Your task to perform on an android device: check the backup settings in the google photos Image 0: 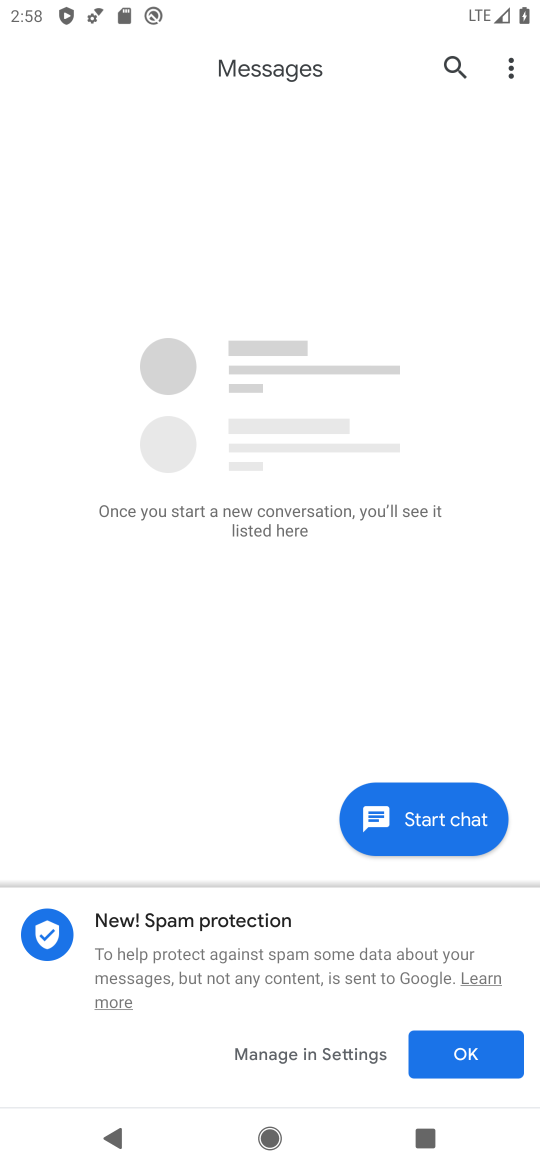
Step 0: press home button
Your task to perform on an android device: check the backup settings in the google photos Image 1: 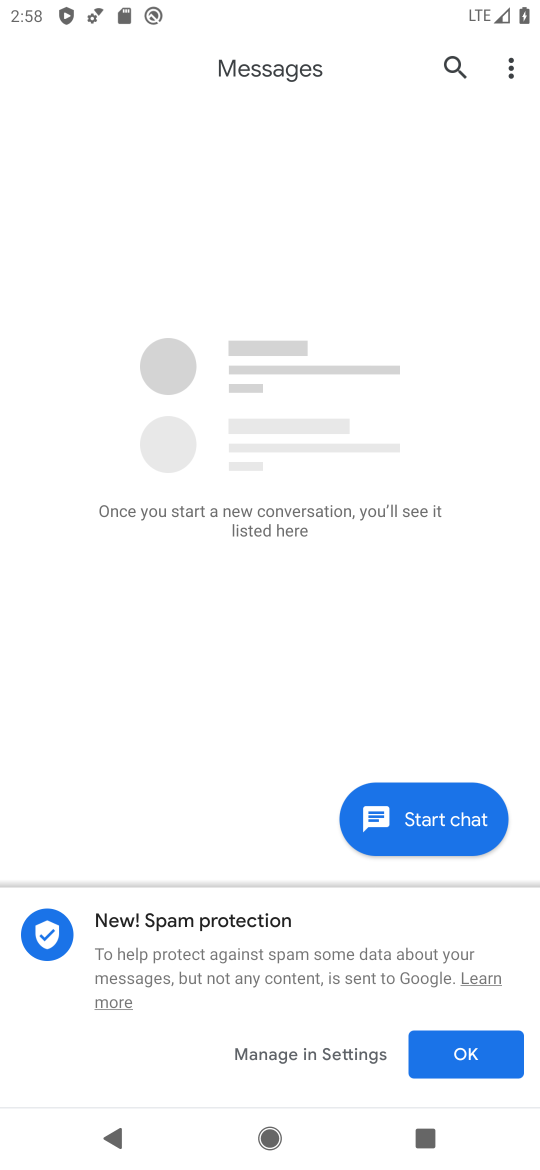
Step 1: press home button
Your task to perform on an android device: check the backup settings in the google photos Image 2: 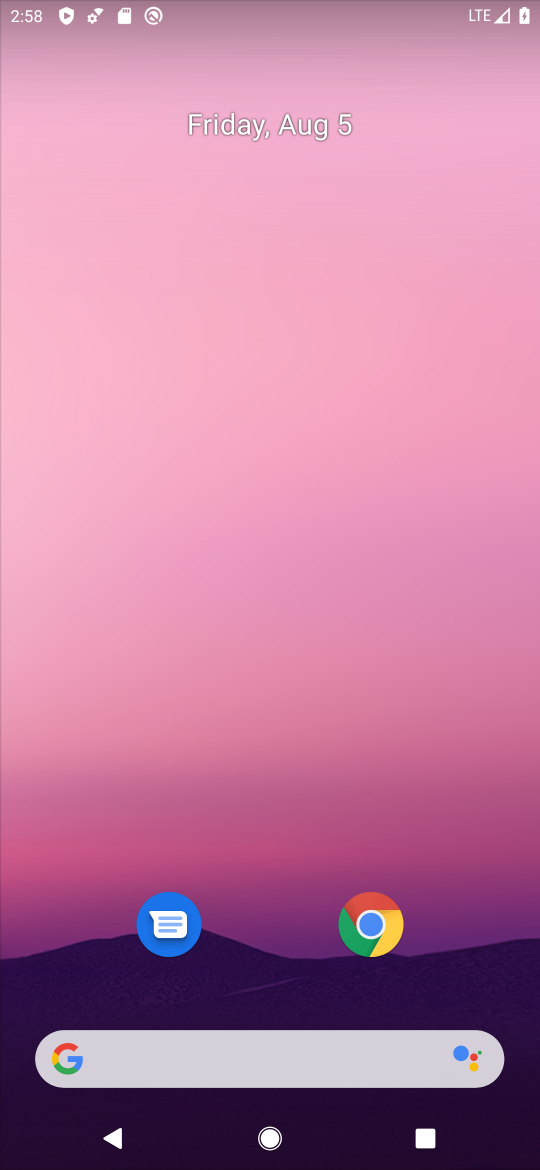
Step 2: drag from (448, 864) to (346, 122)
Your task to perform on an android device: check the backup settings in the google photos Image 3: 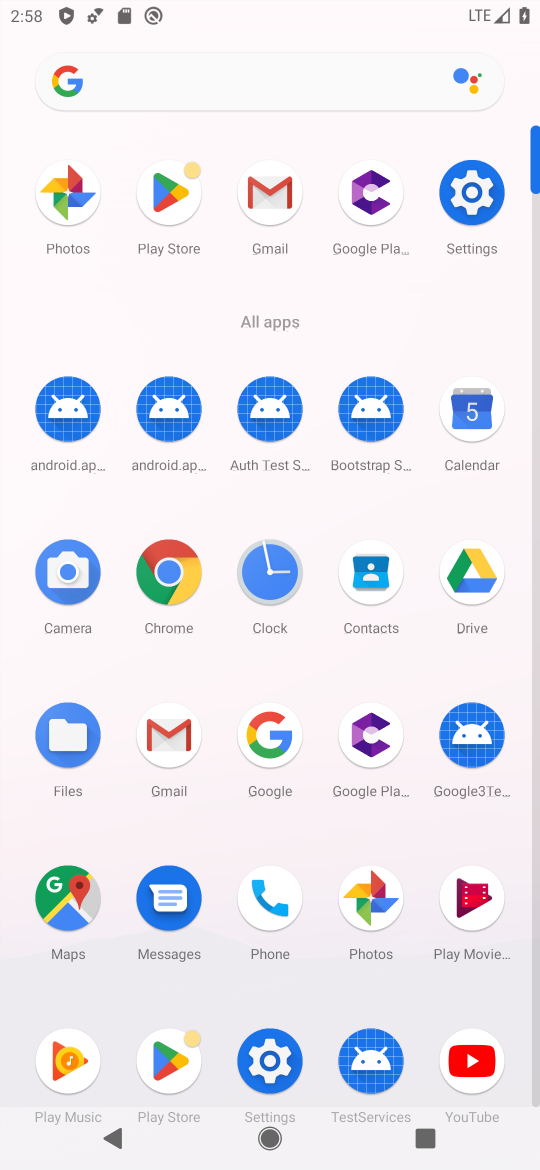
Step 3: click (372, 895)
Your task to perform on an android device: check the backup settings in the google photos Image 4: 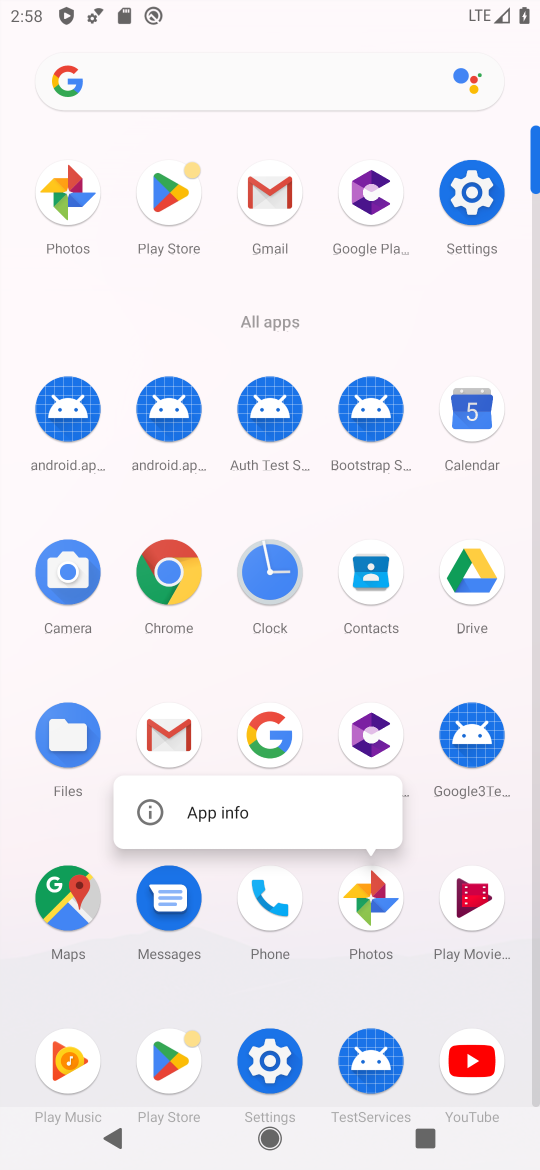
Step 4: click (356, 898)
Your task to perform on an android device: check the backup settings in the google photos Image 5: 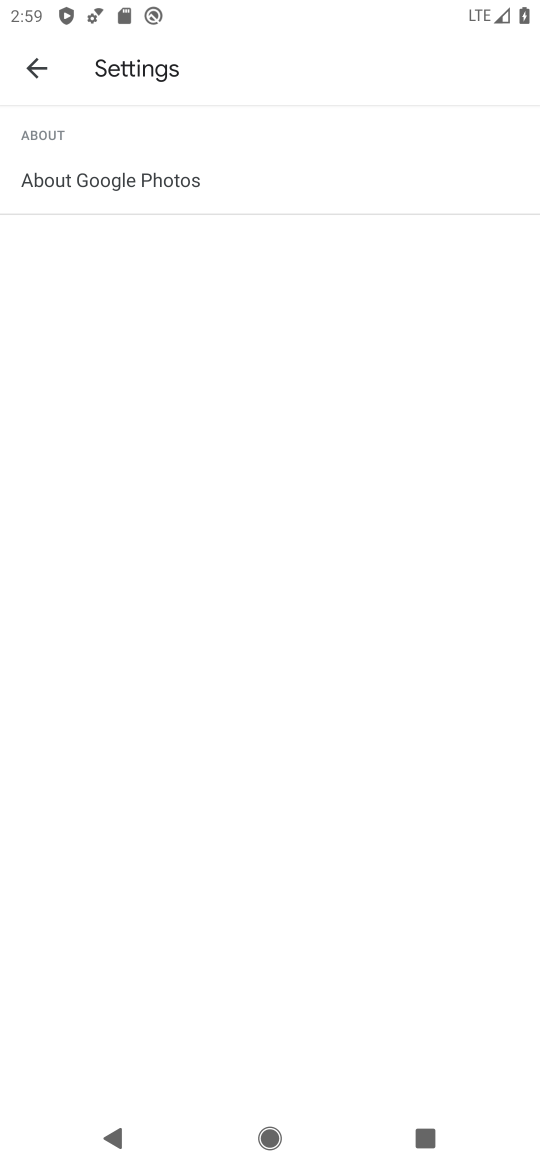
Step 5: click (31, 61)
Your task to perform on an android device: check the backup settings in the google photos Image 6: 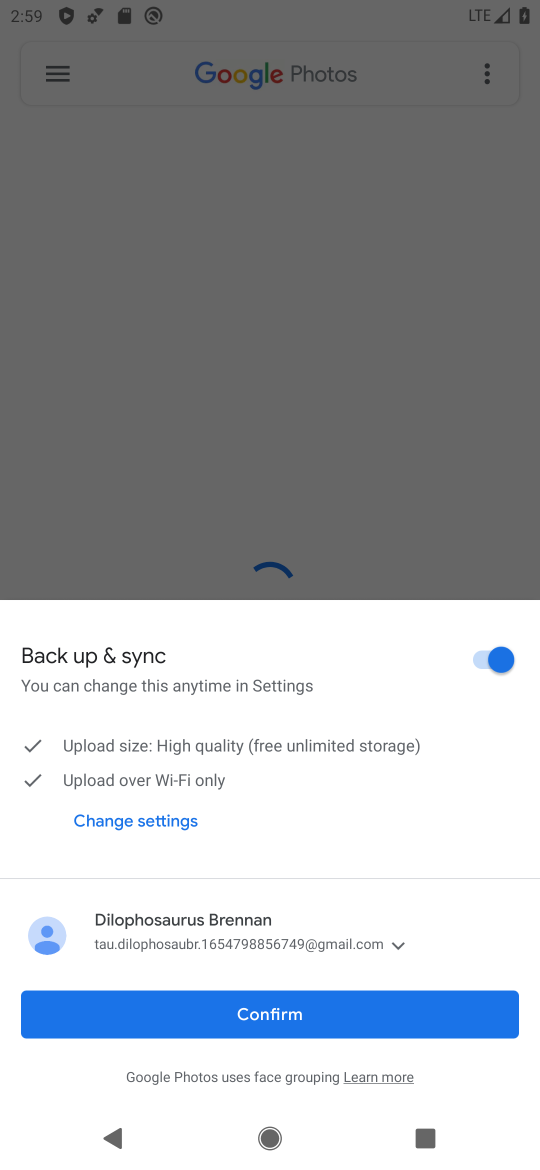
Step 6: click (375, 1008)
Your task to perform on an android device: check the backup settings in the google photos Image 7: 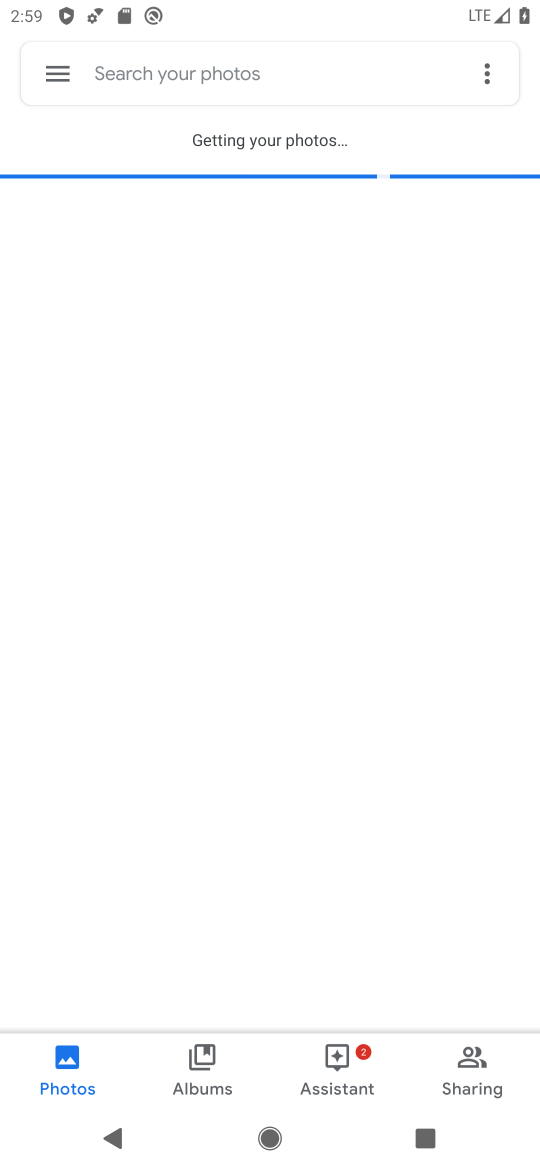
Step 7: click (50, 67)
Your task to perform on an android device: check the backup settings in the google photos Image 8: 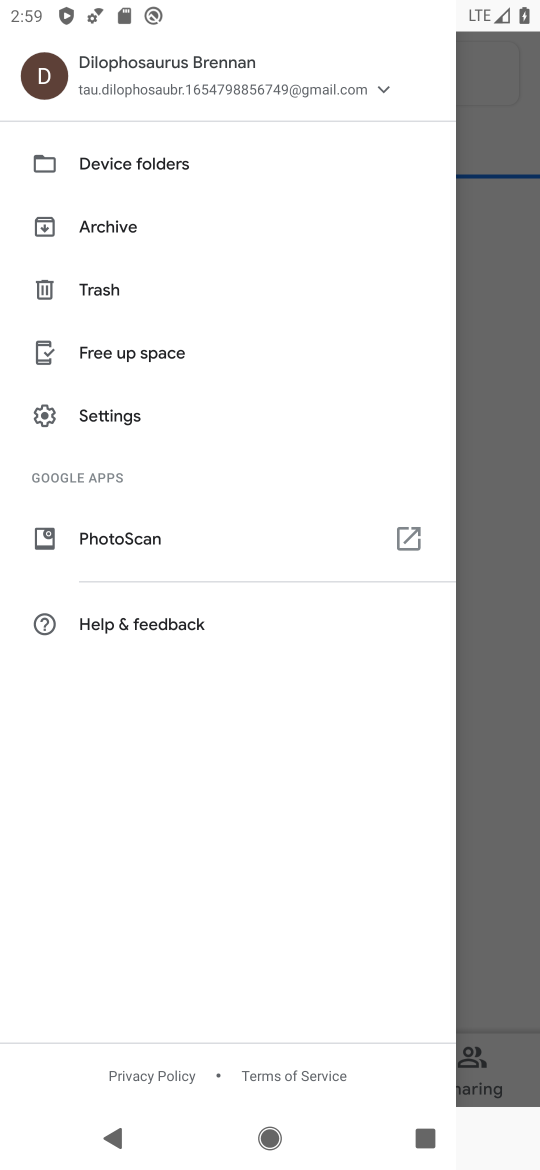
Step 8: click (106, 415)
Your task to perform on an android device: check the backup settings in the google photos Image 9: 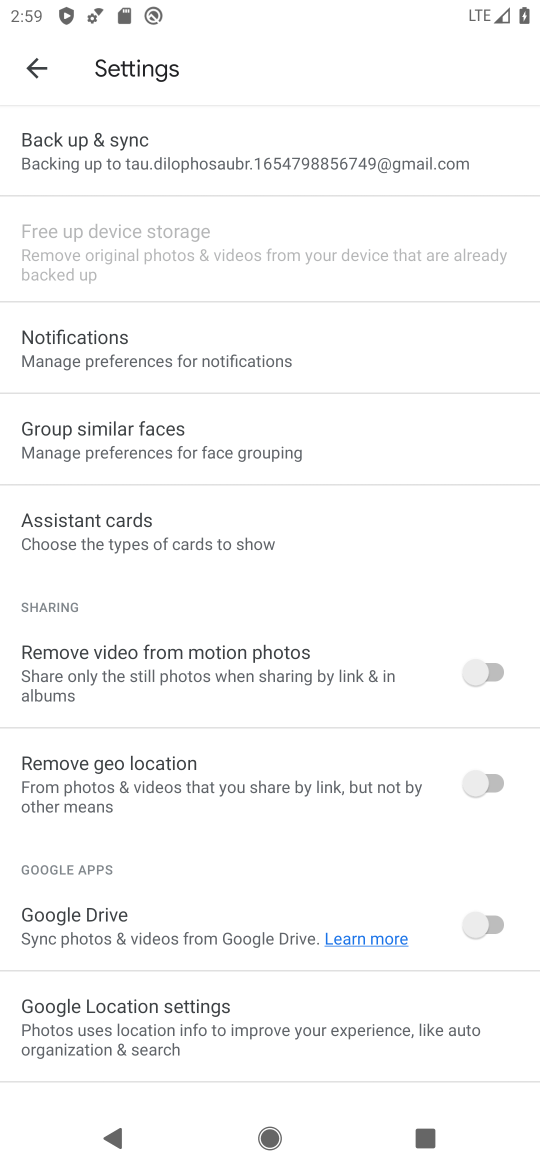
Step 9: click (223, 174)
Your task to perform on an android device: check the backup settings in the google photos Image 10: 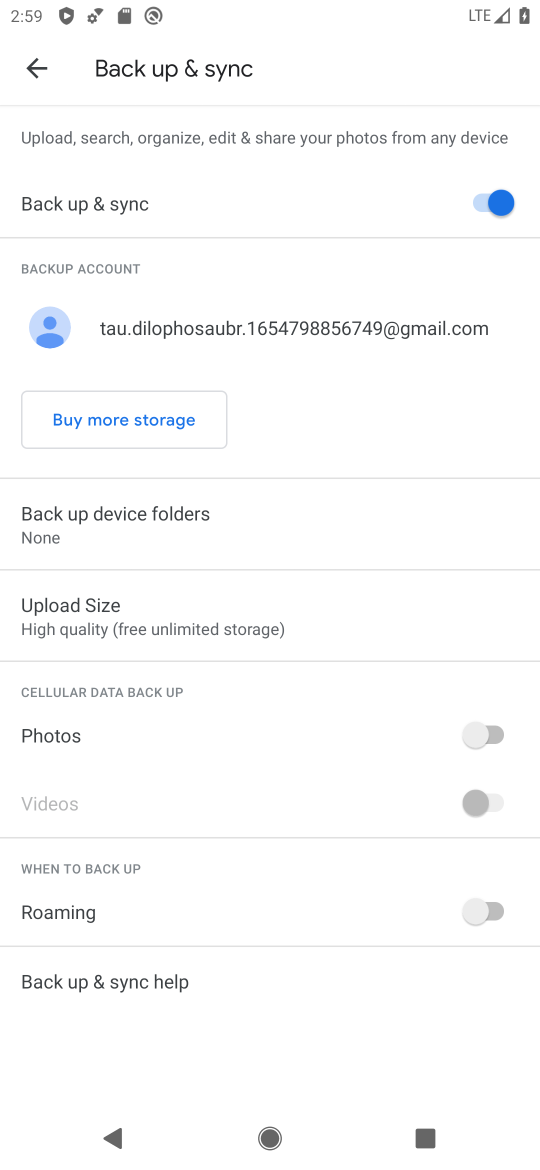
Step 10: task complete